Your task to perform on an android device: Open the calendar app, open the side menu, and click the "Day" option Image 0: 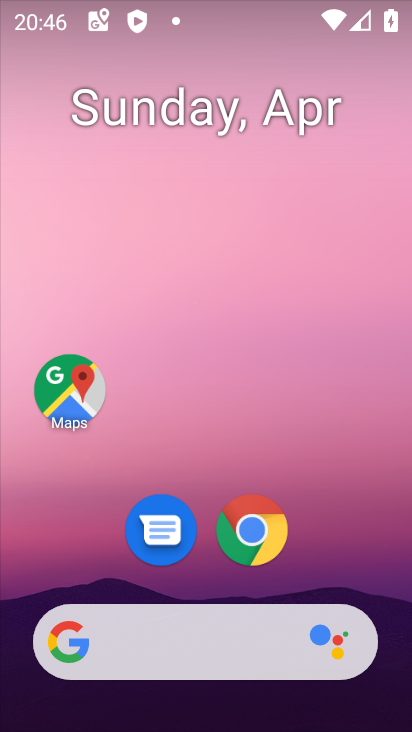
Step 0: drag from (207, 531) to (226, 66)
Your task to perform on an android device: Open the calendar app, open the side menu, and click the "Day" option Image 1: 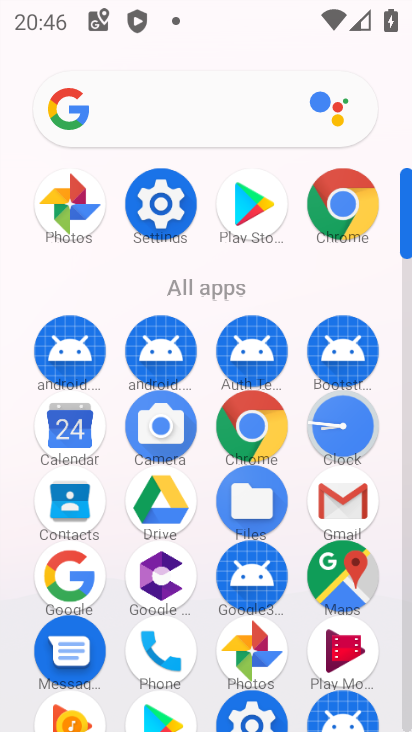
Step 1: click (69, 441)
Your task to perform on an android device: Open the calendar app, open the side menu, and click the "Day" option Image 2: 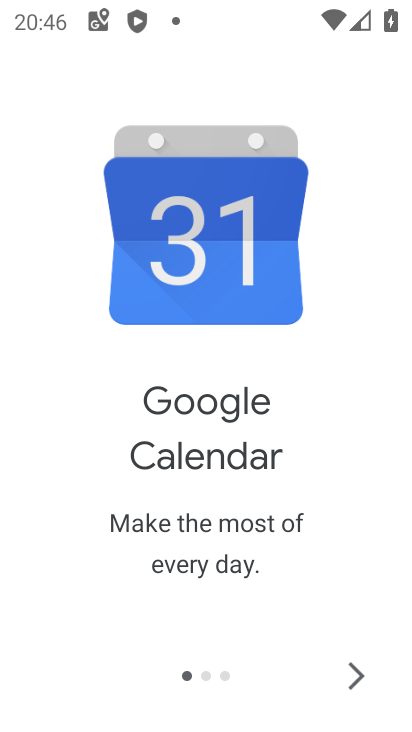
Step 2: click (354, 676)
Your task to perform on an android device: Open the calendar app, open the side menu, and click the "Day" option Image 3: 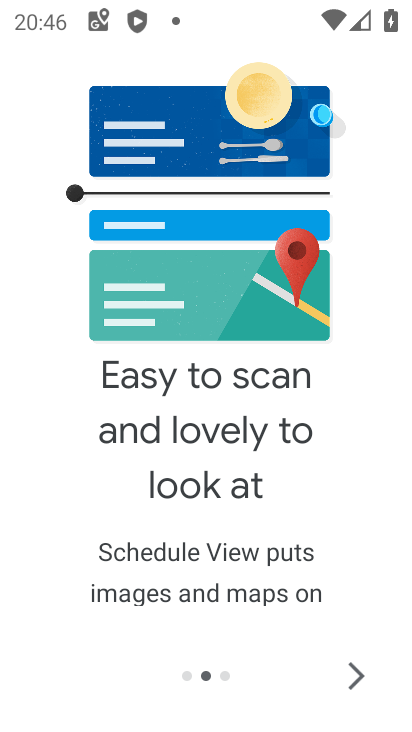
Step 3: click (354, 676)
Your task to perform on an android device: Open the calendar app, open the side menu, and click the "Day" option Image 4: 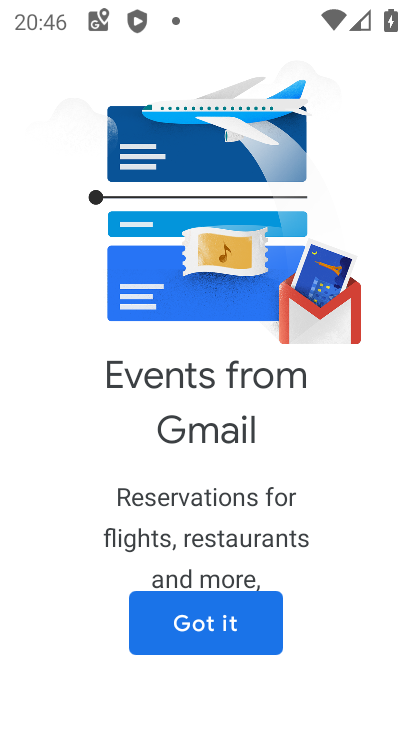
Step 4: click (354, 676)
Your task to perform on an android device: Open the calendar app, open the side menu, and click the "Day" option Image 5: 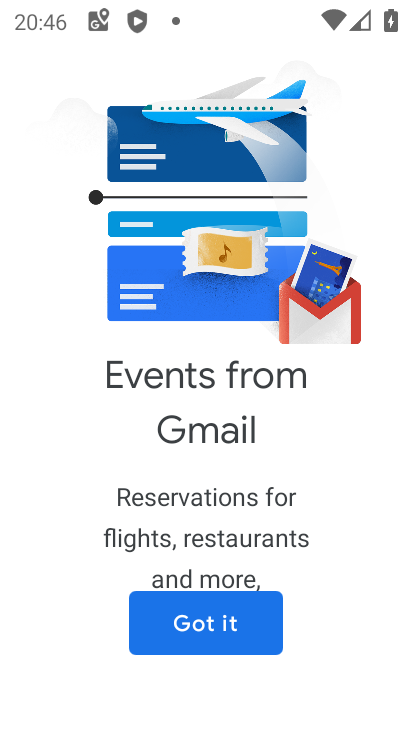
Step 5: click (244, 623)
Your task to perform on an android device: Open the calendar app, open the side menu, and click the "Day" option Image 6: 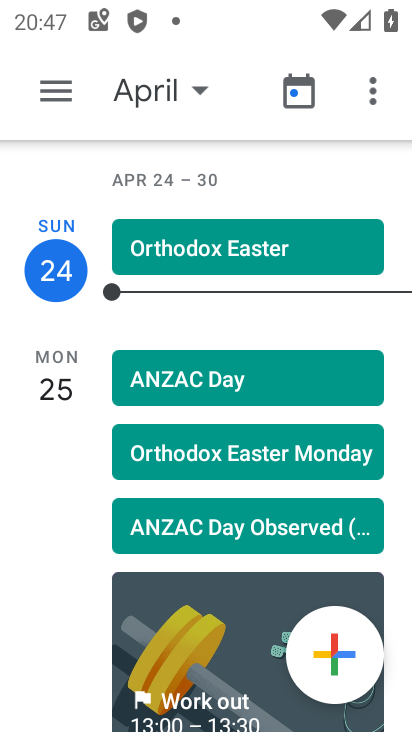
Step 6: click (51, 84)
Your task to perform on an android device: Open the calendar app, open the side menu, and click the "Day" option Image 7: 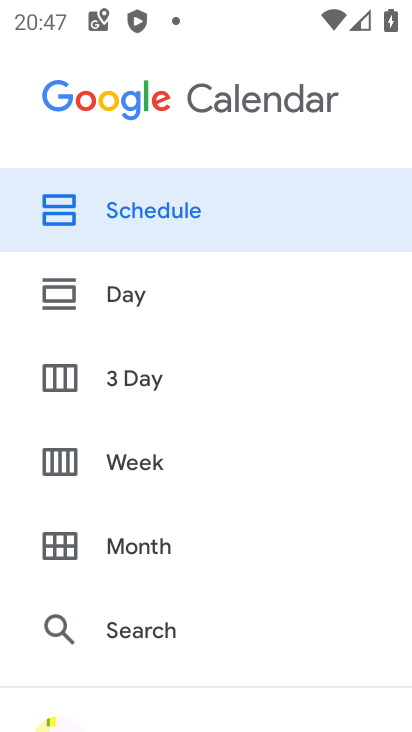
Step 7: click (125, 293)
Your task to perform on an android device: Open the calendar app, open the side menu, and click the "Day" option Image 8: 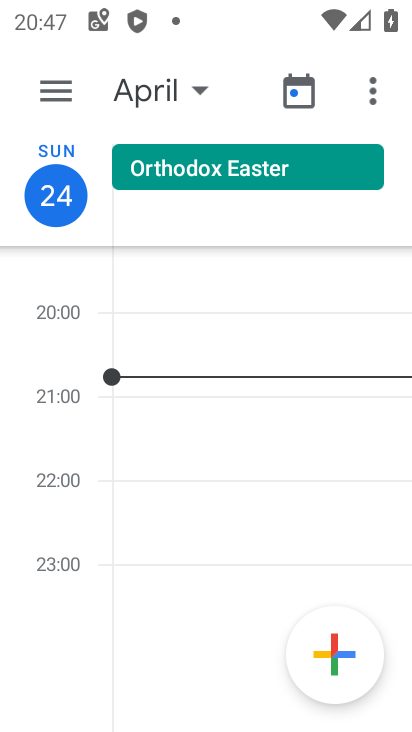
Step 8: task complete